Your task to perform on an android device: Open the calendar app, open the side menu, and click the "Day" option Image 0: 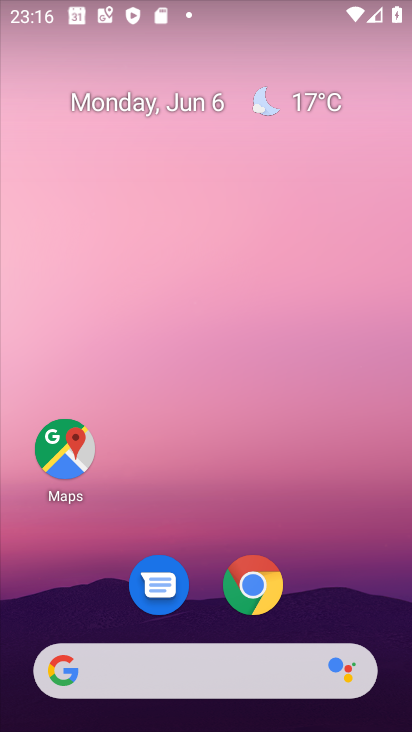
Step 0: drag from (261, 409) to (273, 0)
Your task to perform on an android device: Open the calendar app, open the side menu, and click the "Day" option Image 1: 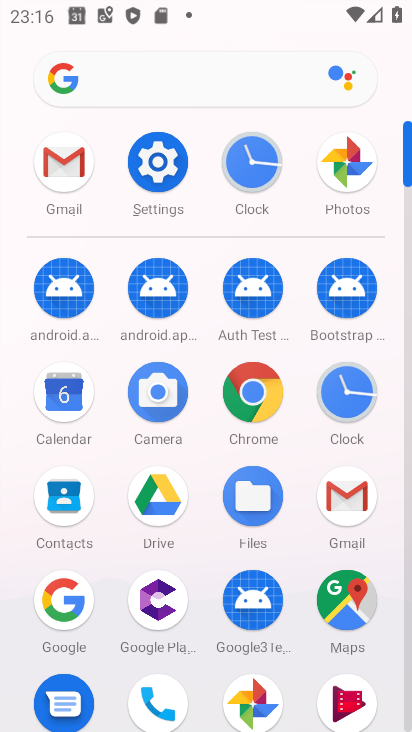
Step 1: click (75, 375)
Your task to perform on an android device: Open the calendar app, open the side menu, and click the "Day" option Image 2: 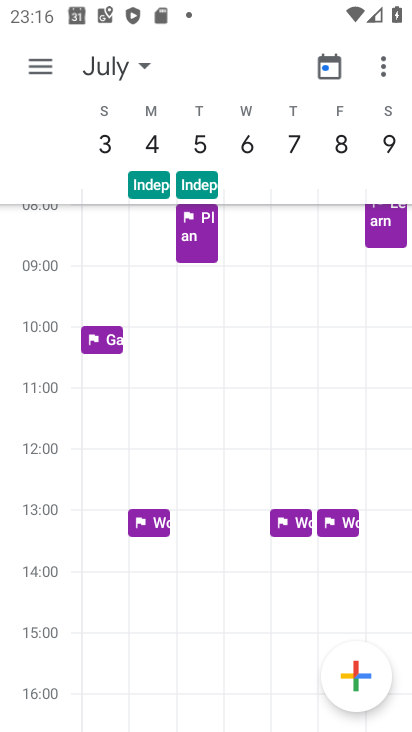
Step 2: click (41, 60)
Your task to perform on an android device: Open the calendar app, open the side menu, and click the "Day" option Image 3: 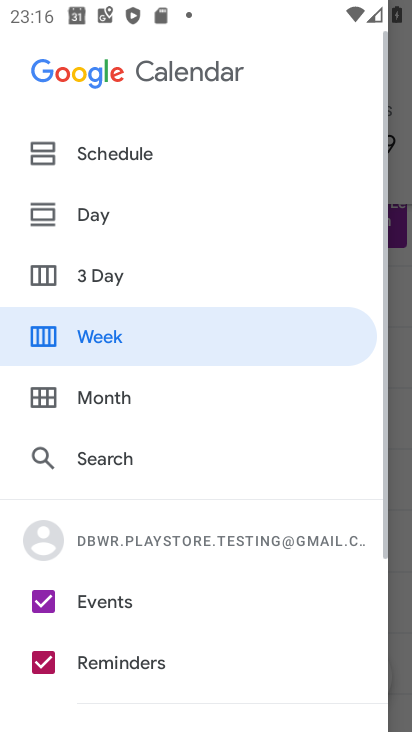
Step 3: click (51, 207)
Your task to perform on an android device: Open the calendar app, open the side menu, and click the "Day" option Image 4: 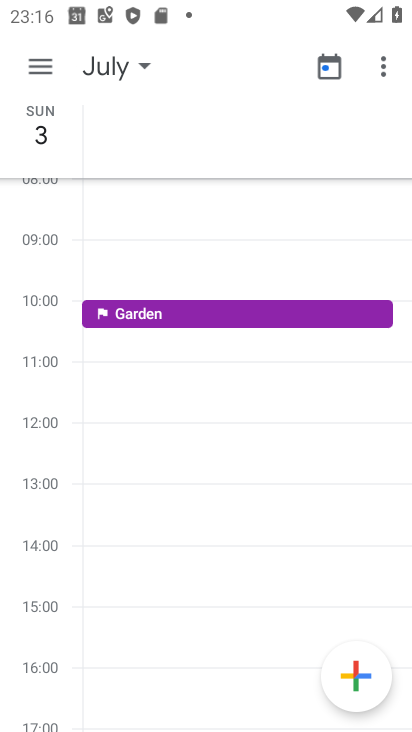
Step 4: task complete